Your task to perform on an android device: turn off notifications in google photos Image 0: 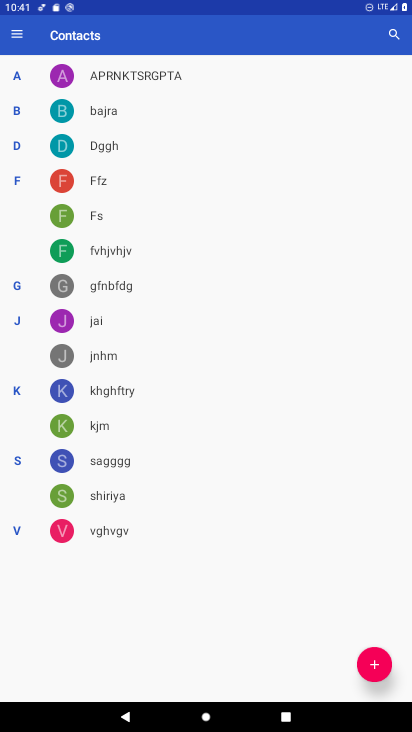
Step 0: press home button
Your task to perform on an android device: turn off notifications in google photos Image 1: 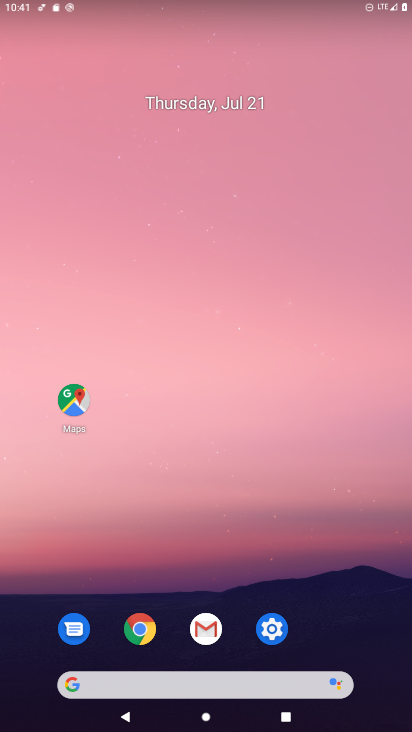
Step 1: drag from (297, 698) to (208, 92)
Your task to perform on an android device: turn off notifications in google photos Image 2: 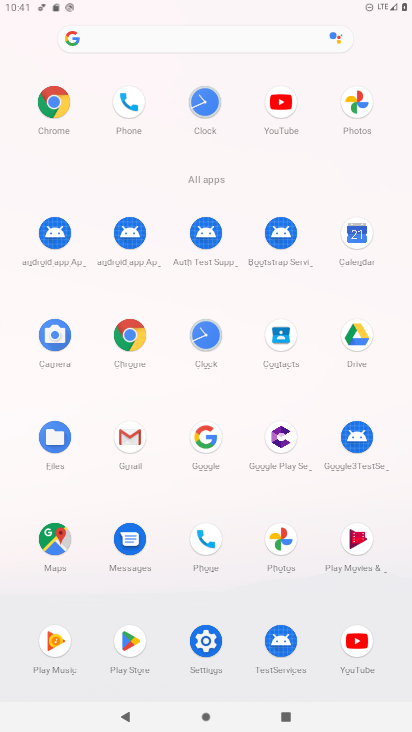
Step 2: click (296, 535)
Your task to perform on an android device: turn off notifications in google photos Image 3: 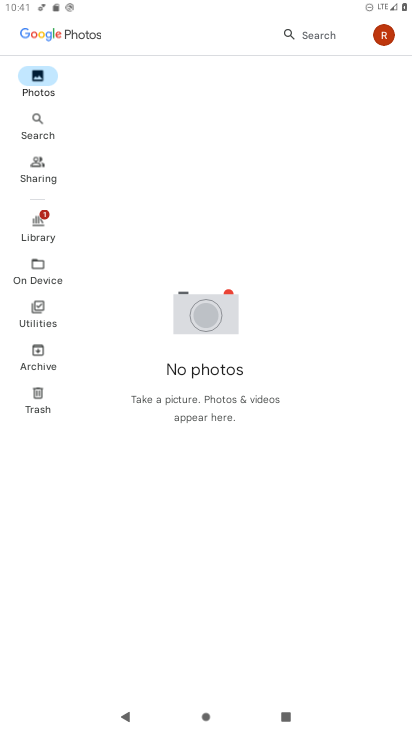
Step 3: click (391, 33)
Your task to perform on an android device: turn off notifications in google photos Image 4: 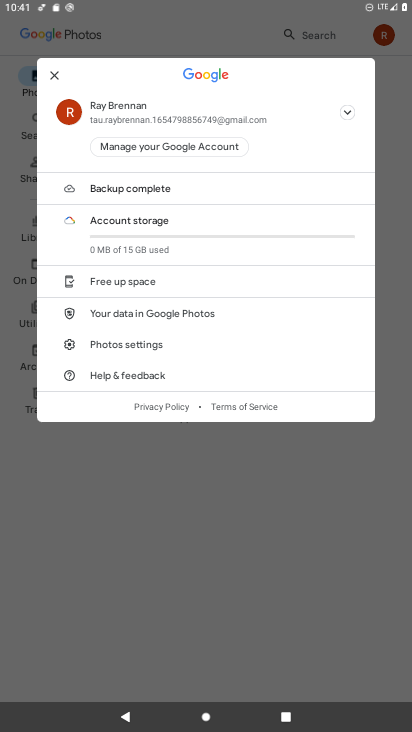
Step 4: click (166, 346)
Your task to perform on an android device: turn off notifications in google photos Image 5: 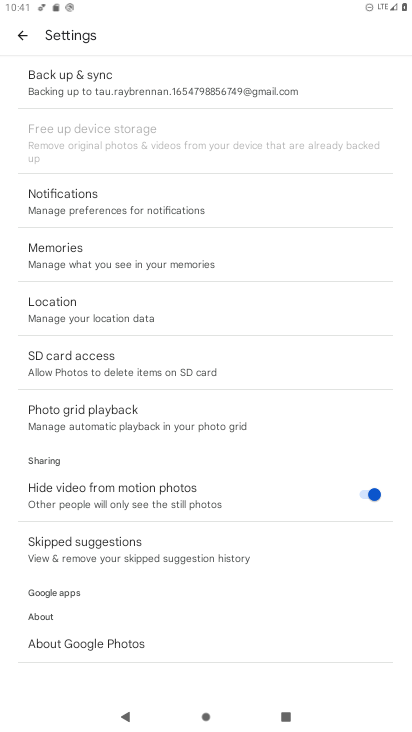
Step 5: click (100, 214)
Your task to perform on an android device: turn off notifications in google photos Image 6: 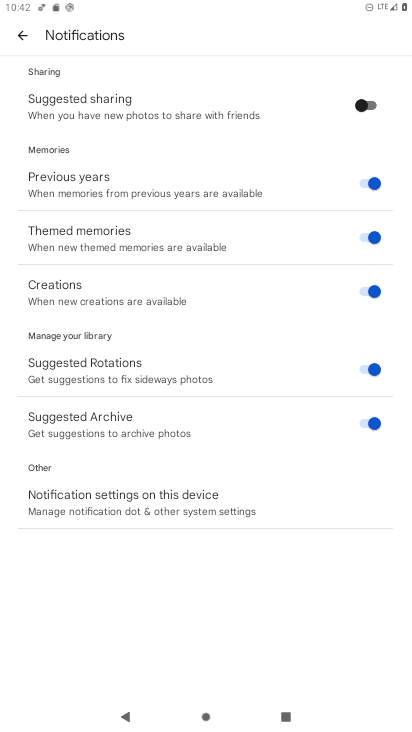
Step 6: click (113, 499)
Your task to perform on an android device: turn off notifications in google photos Image 7: 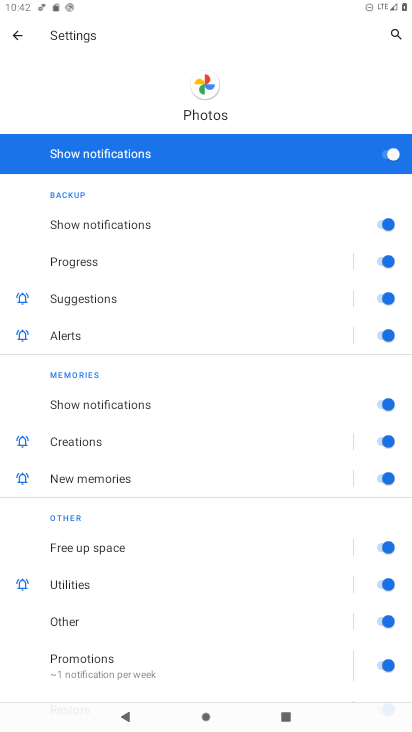
Step 7: click (378, 158)
Your task to perform on an android device: turn off notifications in google photos Image 8: 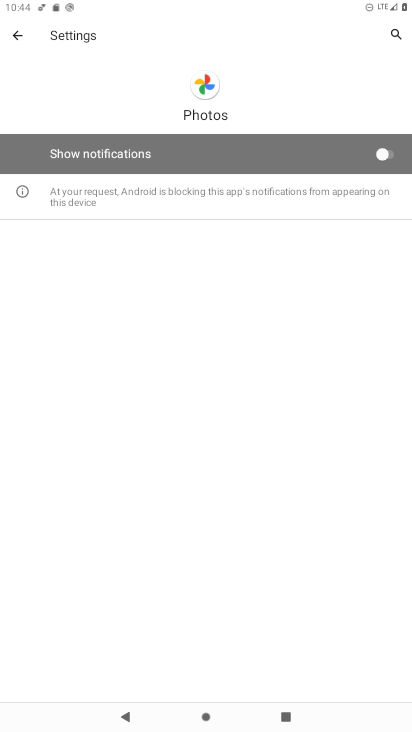
Step 8: task complete